Your task to perform on an android device: delete a single message in the gmail app Image 0: 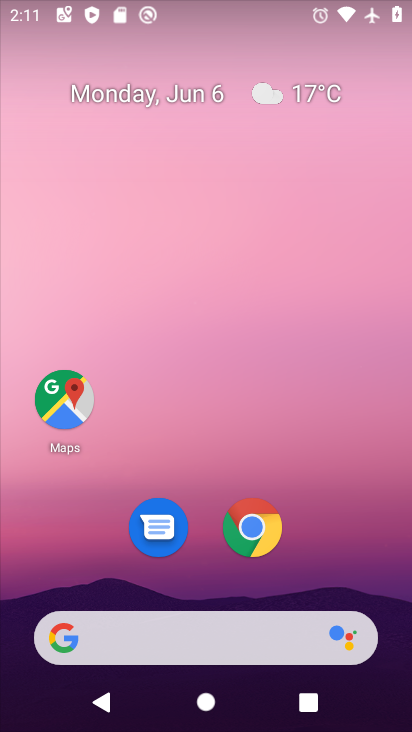
Step 0: drag from (328, 483) to (131, 16)
Your task to perform on an android device: delete a single message in the gmail app Image 1: 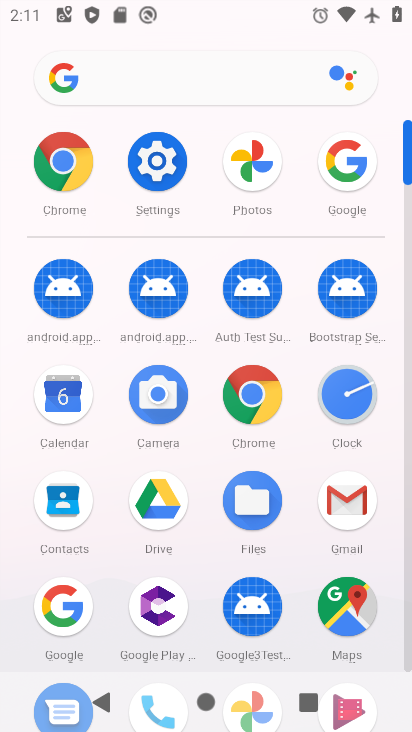
Step 1: click (341, 497)
Your task to perform on an android device: delete a single message in the gmail app Image 2: 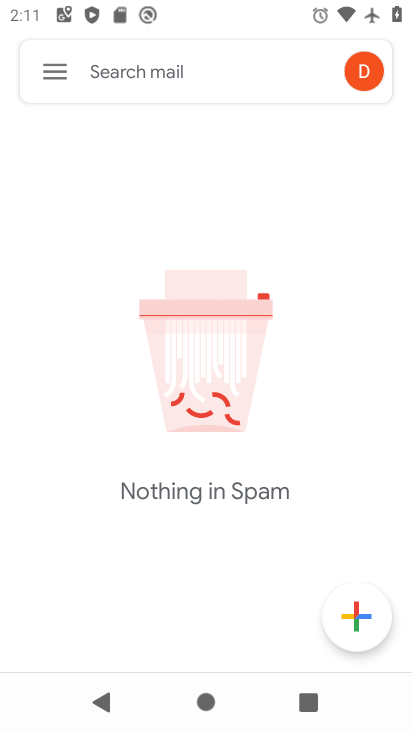
Step 2: click (58, 79)
Your task to perform on an android device: delete a single message in the gmail app Image 3: 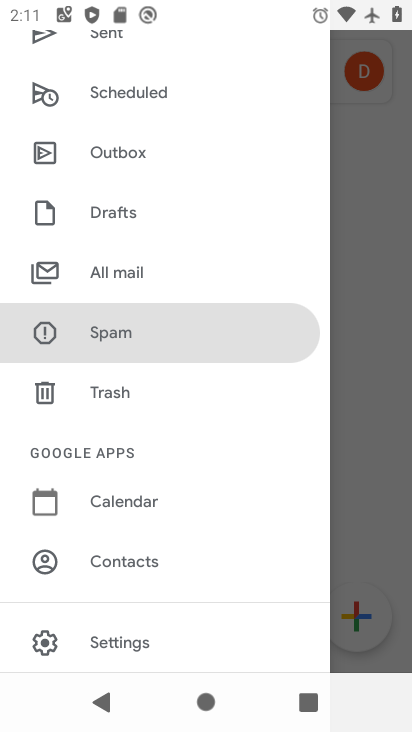
Step 3: click (151, 265)
Your task to perform on an android device: delete a single message in the gmail app Image 4: 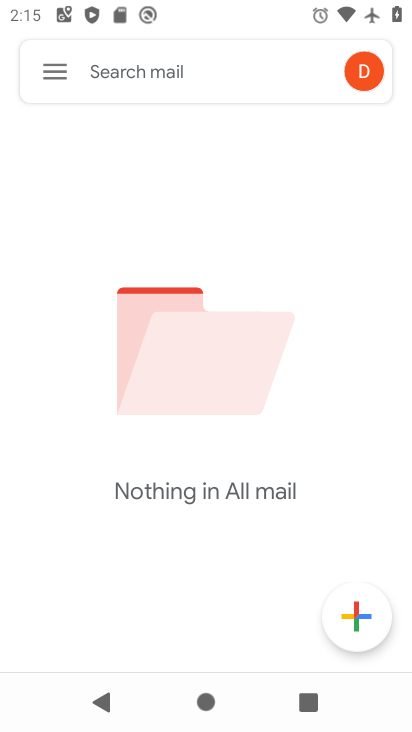
Step 4: task complete